Your task to perform on an android device: Open Android settings Image 0: 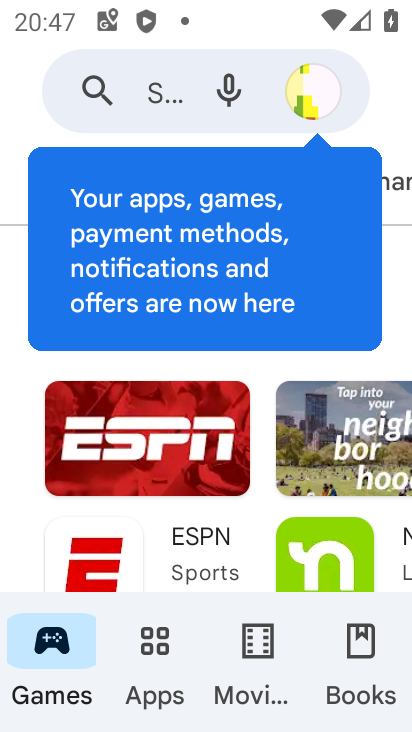
Step 0: press home button
Your task to perform on an android device: Open Android settings Image 1: 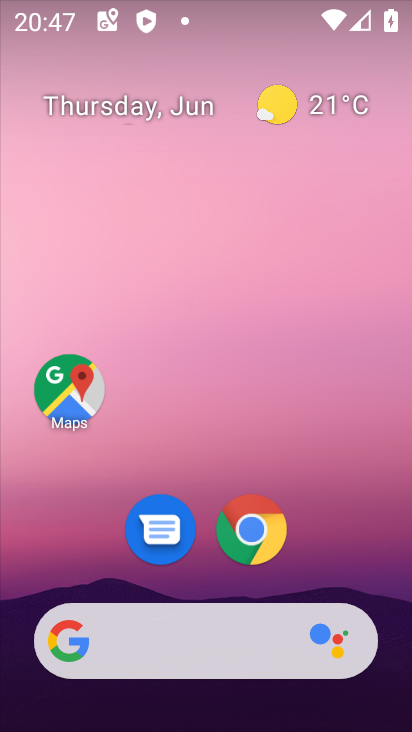
Step 1: drag from (209, 464) to (181, 65)
Your task to perform on an android device: Open Android settings Image 2: 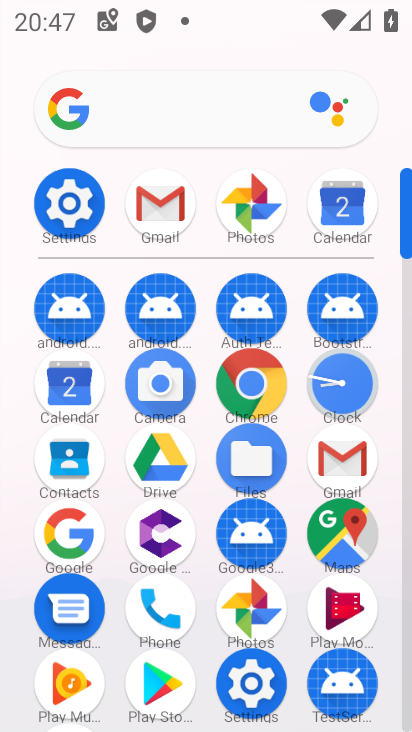
Step 2: click (70, 204)
Your task to perform on an android device: Open Android settings Image 3: 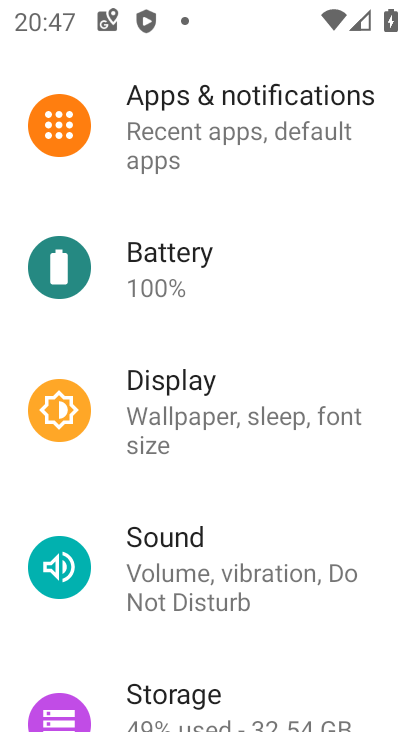
Step 3: task complete